Your task to perform on an android device: Open the calendar and show me this week's events? Image 0: 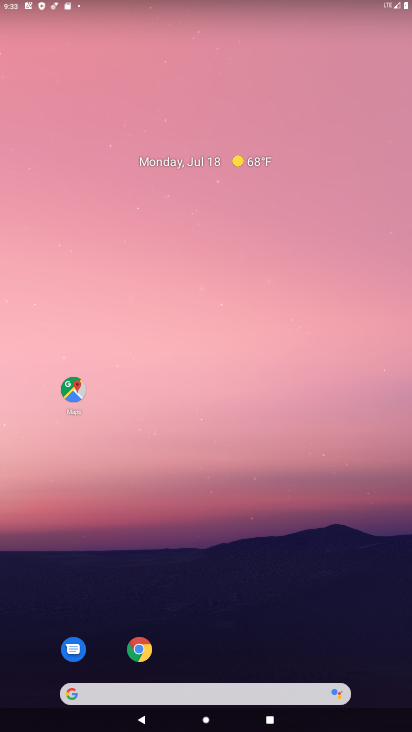
Step 0: drag from (156, 716) to (199, 99)
Your task to perform on an android device: Open the calendar and show me this week's events? Image 1: 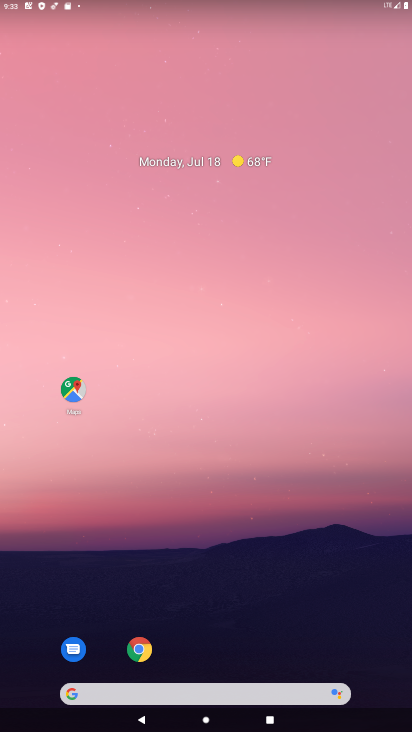
Step 1: drag from (171, 722) to (150, 17)
Your task to perform on an android device: Open the calendar and show me this week's events? Image 2: 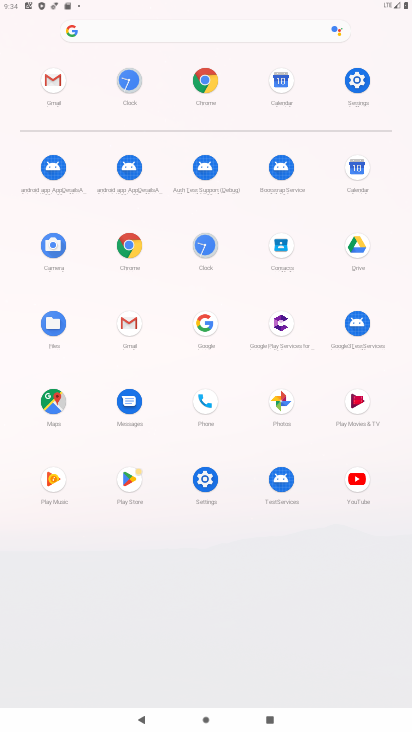
Step 2: click (359, 161)
Your task to perform on an android device: Open the calendar and show me this week's events? Image 3: 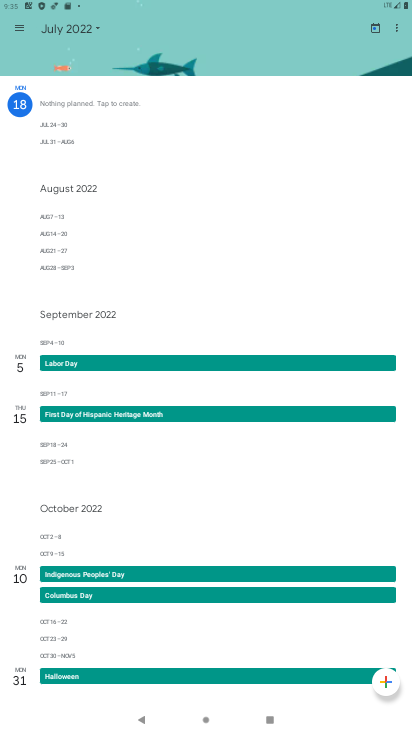
Step 3: task complete